Your task to perform on an android device: open app "Messenger Lite" (install if not already installed) Image 0: 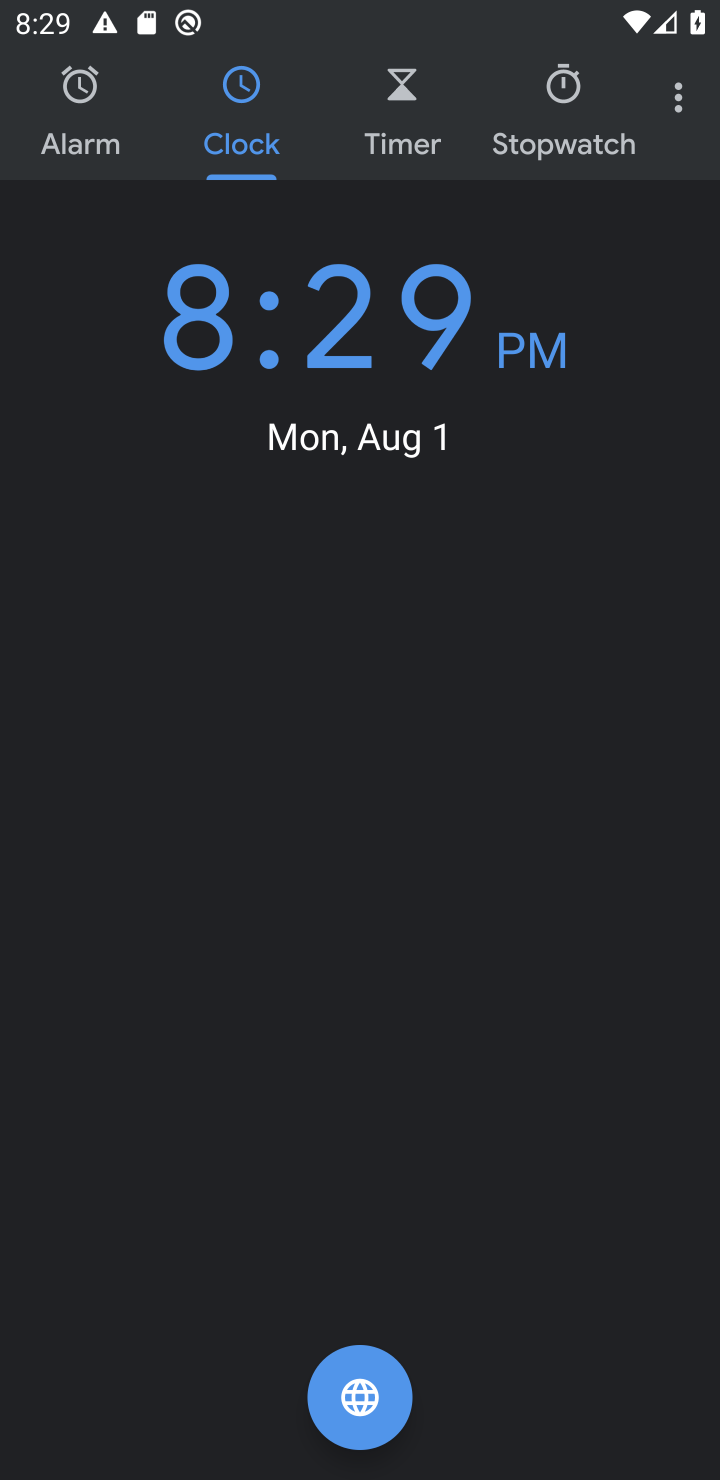
Step 0: press home button
Your task to perform on an android device: open app "Messenger Lite" (install if not already installed) Image 1: 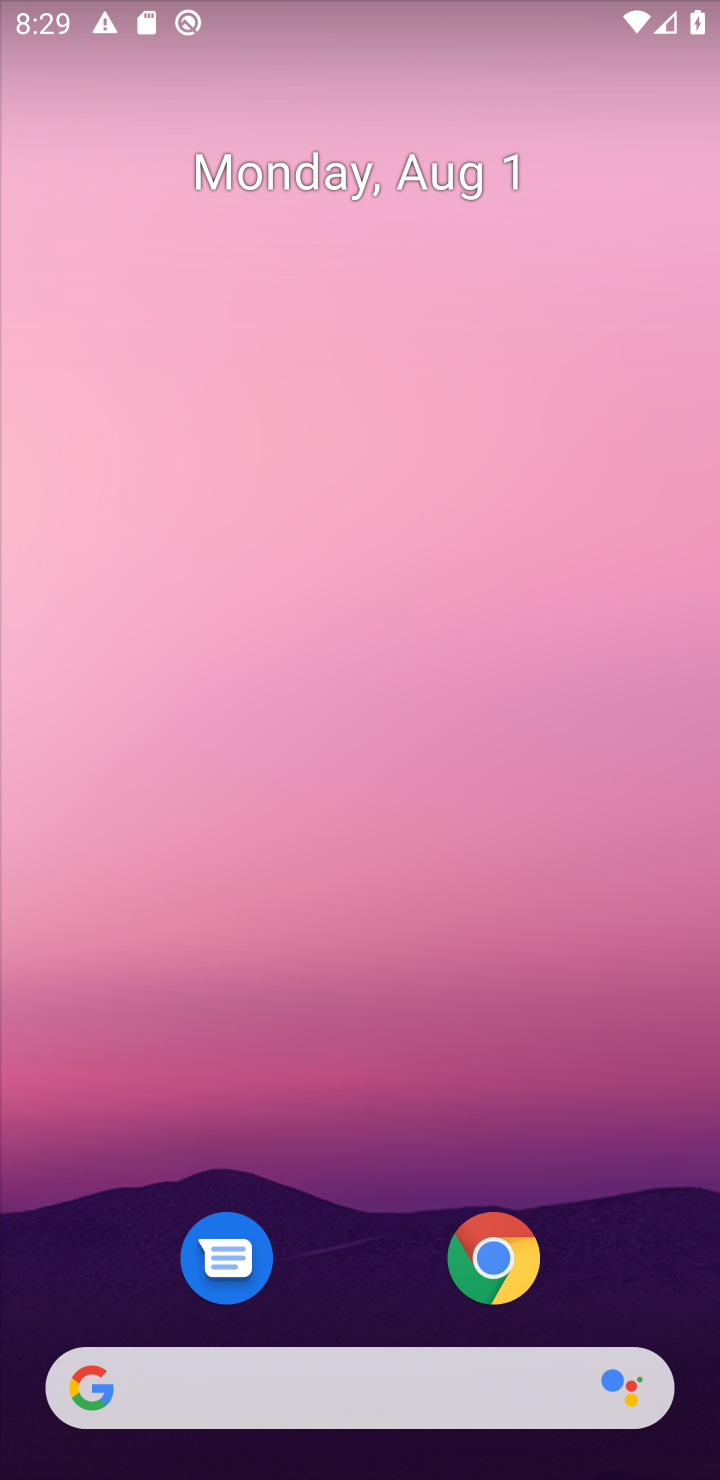
Step 1: drag from (338, 1271) to (338, 159)
Your task to perform on an android device: open app "Messenger Lite" (install if not already installed) Image 2: 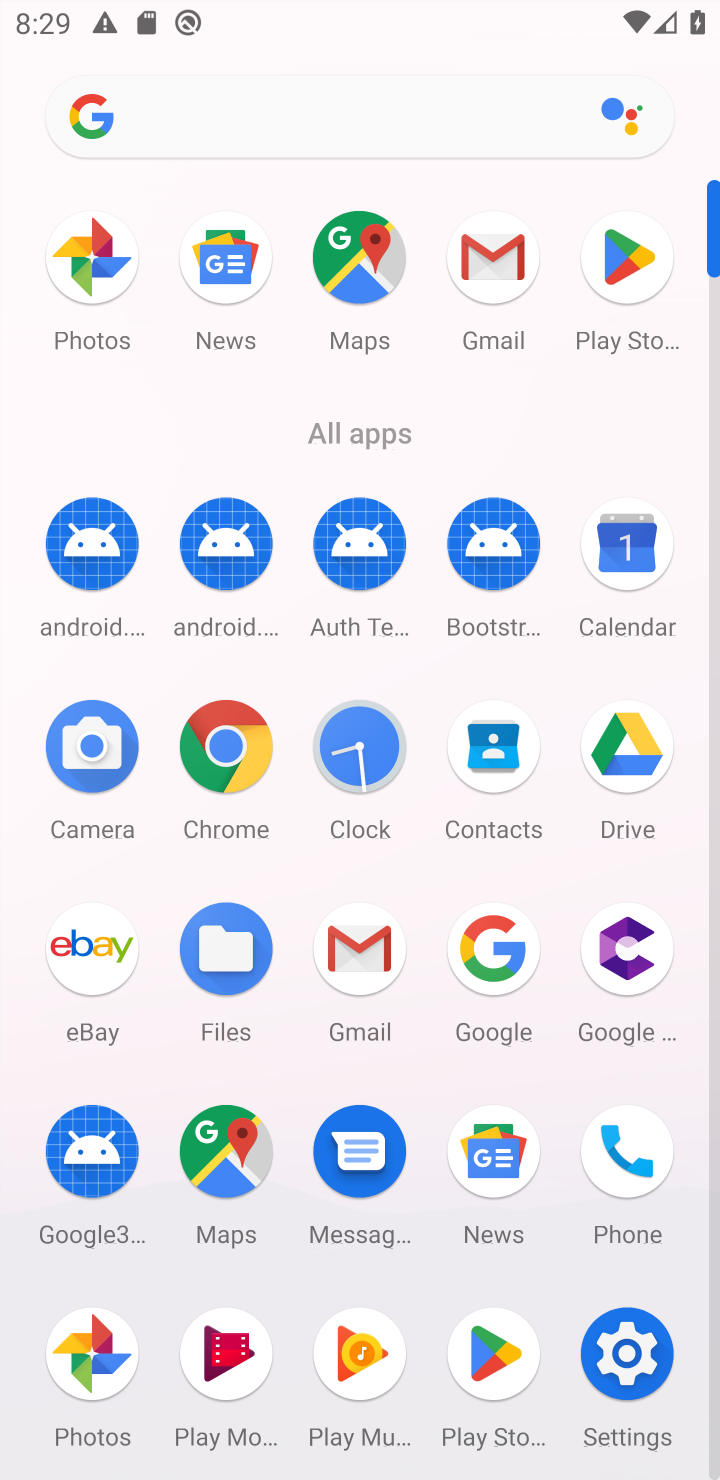
Step 2: click (624, 261)
Your task to perform on an android device: open app "Messenger Lite" (install if not already installed) Image 3: 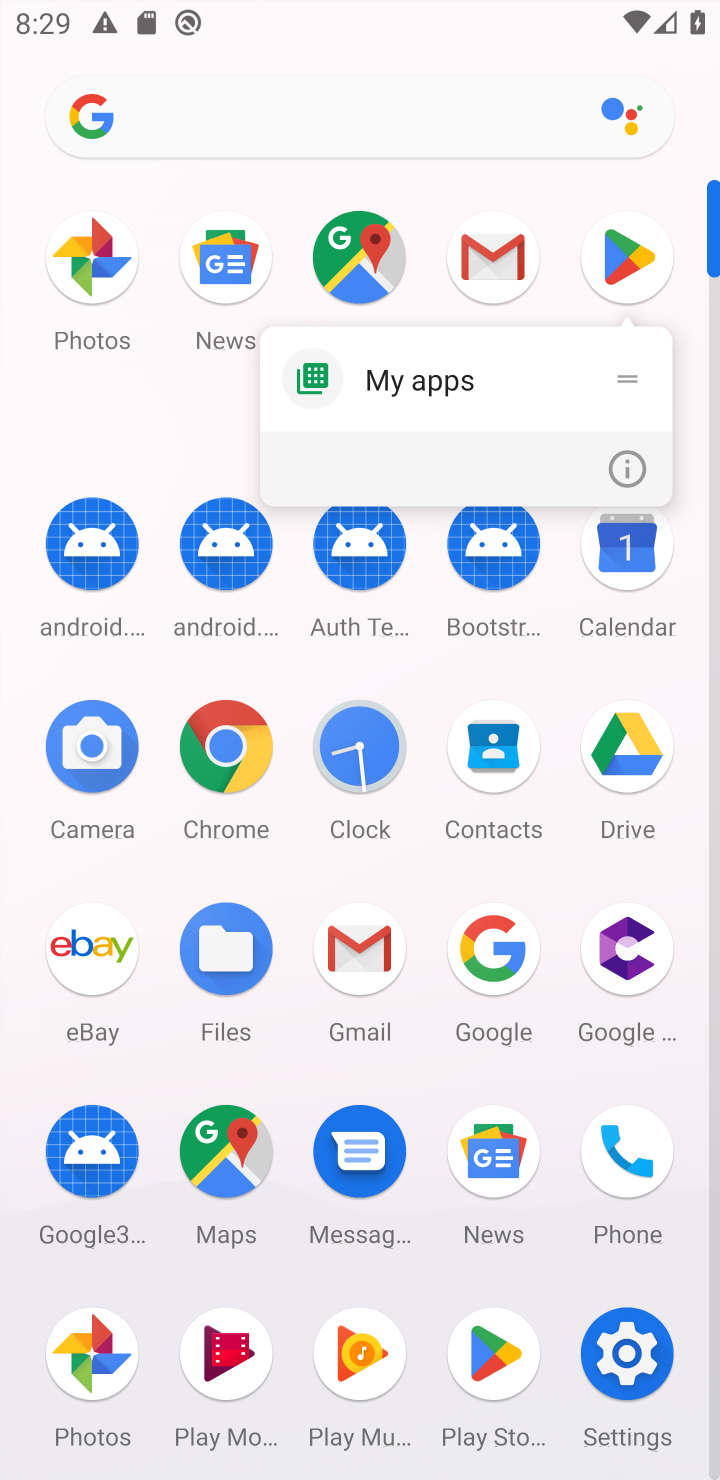
Step 3: click (634, 255)
Your task to perform on an android device: open app "Messenger Lite" (install if not already installed) Image 4: 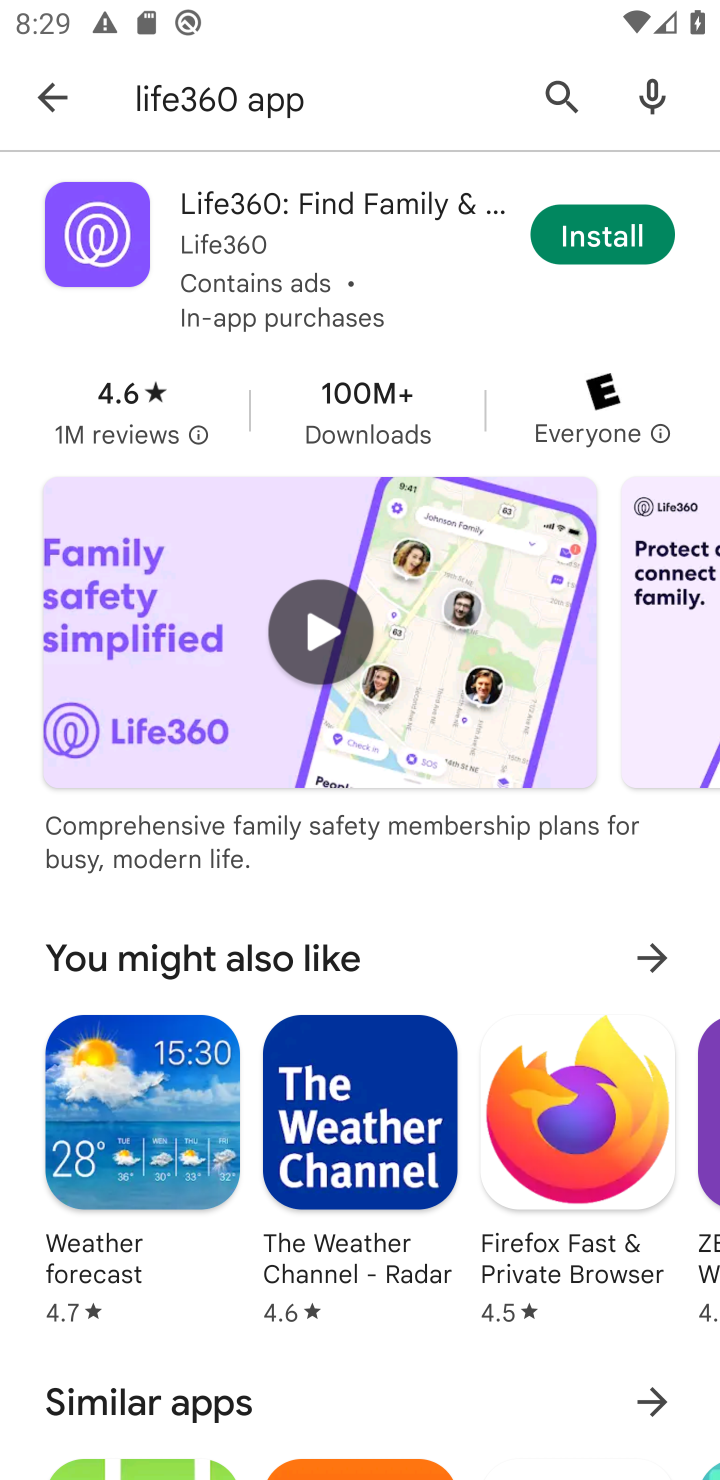
Step 4: task complete